Your task to perform on an android device: create a new album in the google photos Image 0: 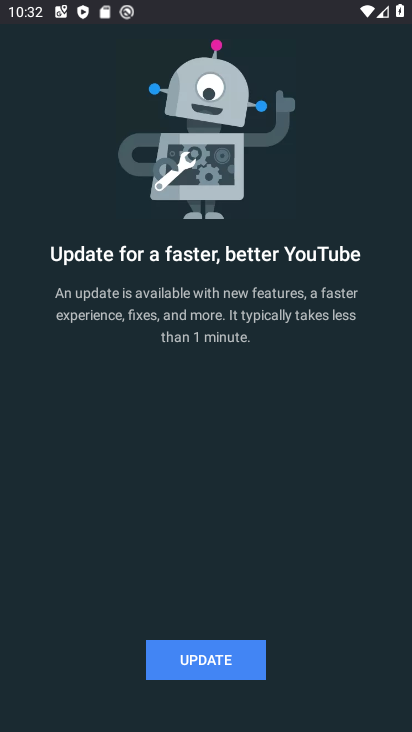
Step 0: press back button
Your task to perform on an android device: create a new album in the google photos Image 1: 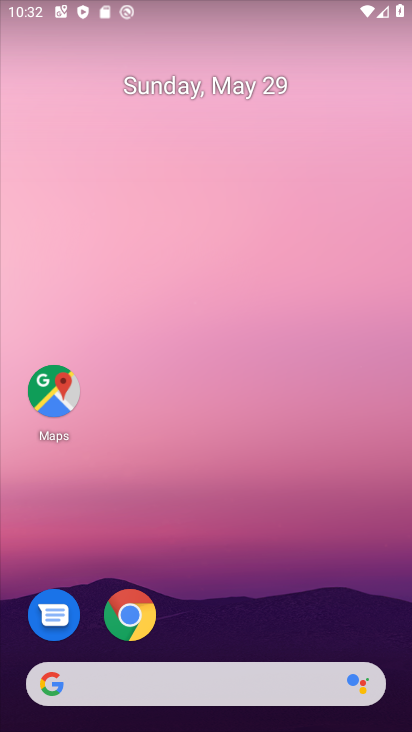
Step 1: drag from (227, 628) to (208, 24)
Your task to perform on an android device: create a new album in the google photos Image 2: 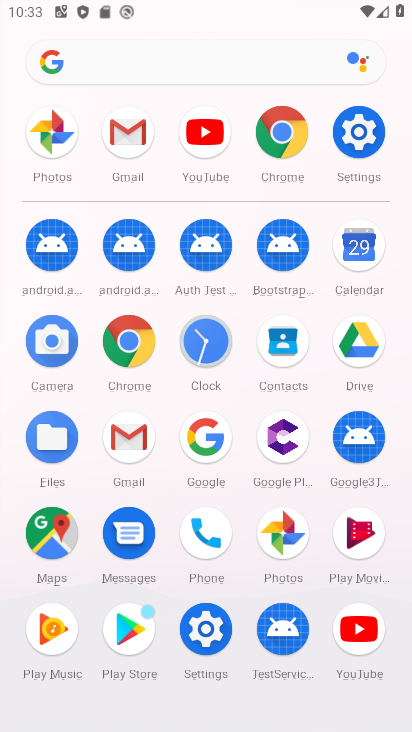
Step 2: click (275, 535)
Your task to perform on an android device: create a new album in the google photos Image 3: 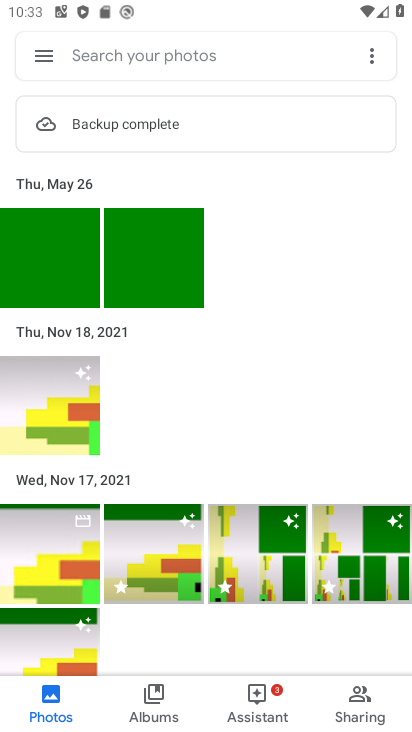
Step 3: click (73, 237)
Your task to perform on an android device: create a new album in the google photos Image 4: 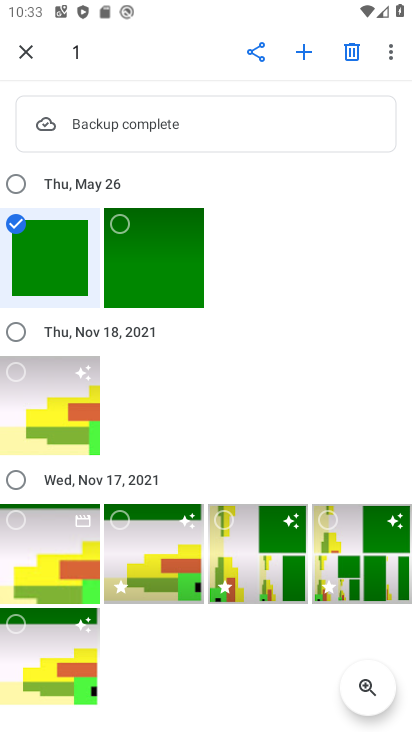
Step 4: click (124, 251)
Your task to perform on an android device: create a new album in the google photos Image 5: 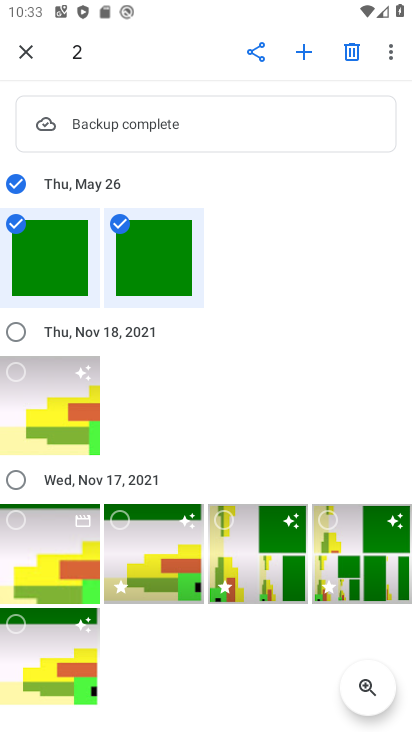
Step 5: click (294, 57)
Your task to perform on an android device: create a new album in the google photos Image 6: 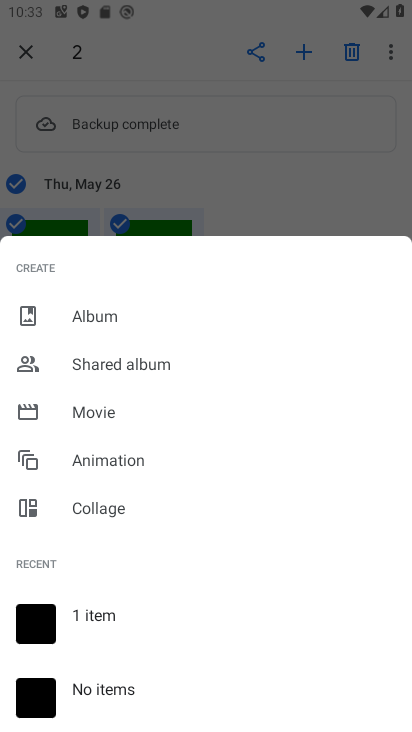
Step 6: click (105, 326)
Your task to perform on an android device: create a new album in the google photos Image 7: 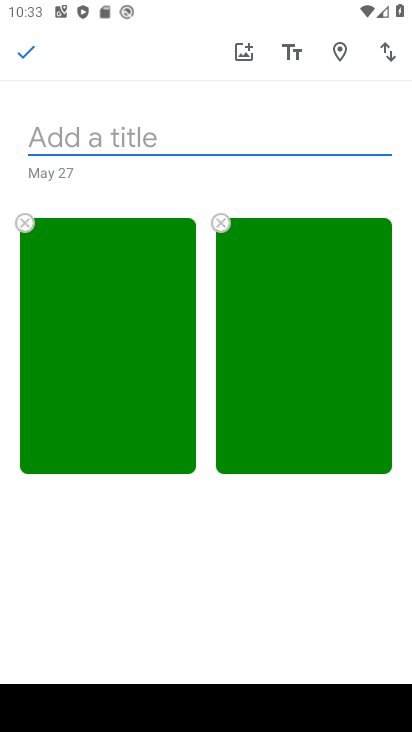
Step 7: type "hn"
Your task to perform on an android device: create a new album in the google photos Image 8: 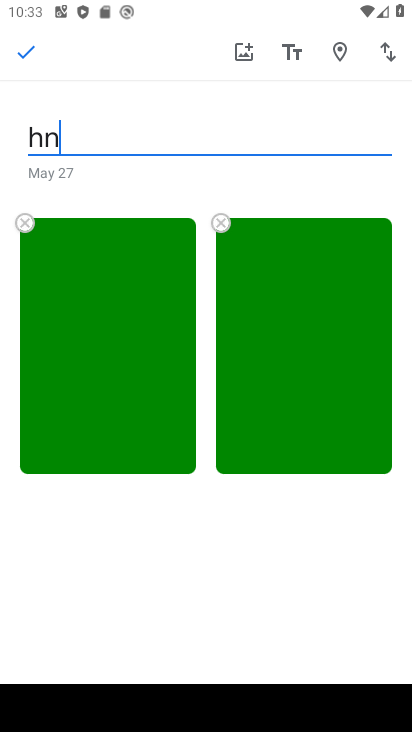
Step 8: click (23, 55)
Your task to perform on an android device: create a new album in the google photos Image 9: 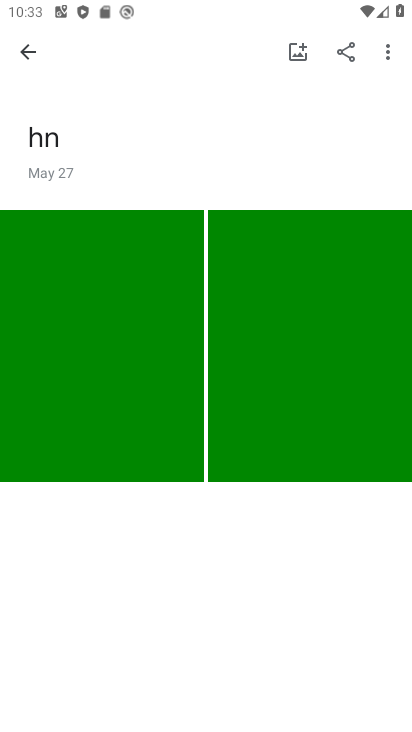
Step 9: task complete